Your task to perform on an android device: Open Wikipedia Image 0: 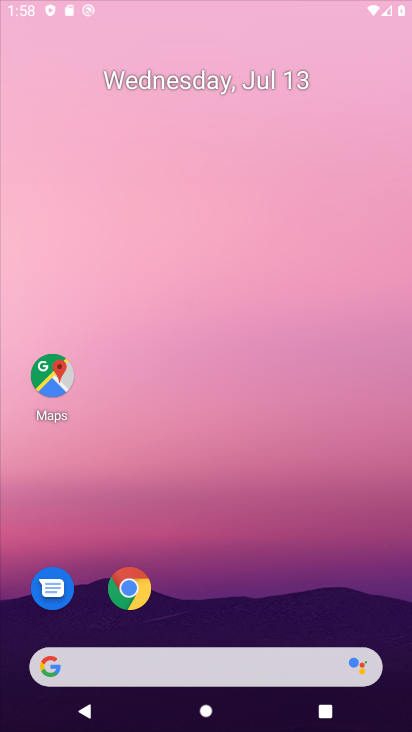
Step 0: click (230, 20)
Your task to perform on an android device: Open Wikipedia Image 1: 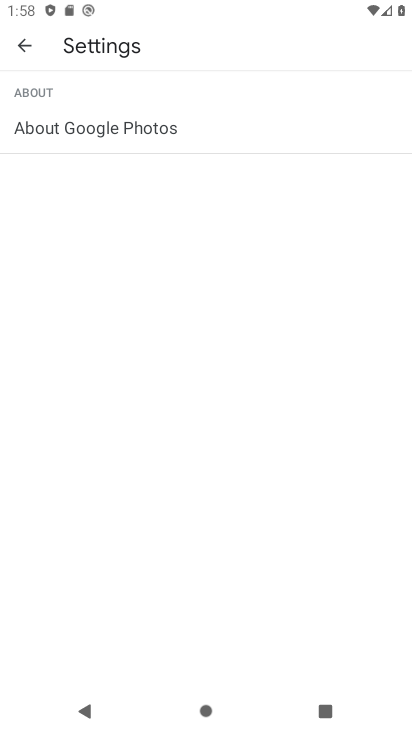
Step 1: drag from (205, 595) to (251, 143)
Your task to perform on an android device: Open Wikipedia Image 2: 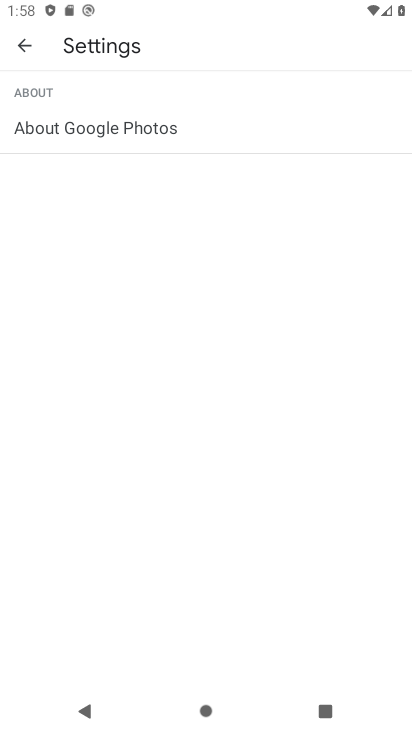
Step 2: press home button
Your task to perform on an android device: Open Wikipedia Image 3: 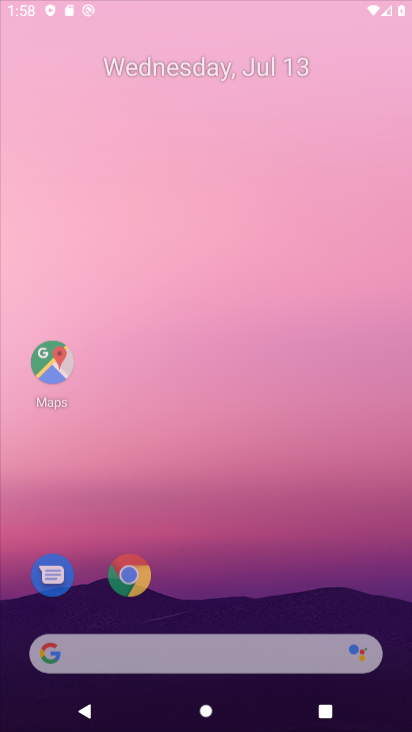
Step 3: drag from (251, 522) to (244, 115)
Your task to perform on an android device: Open Wikipedia Image 4: 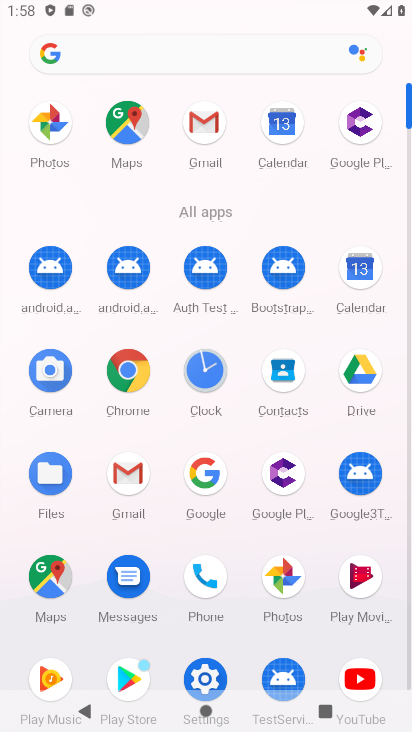
Step 4: click (163, 62)
Your task to perform on an android device: Open Wikipedia Image 5: 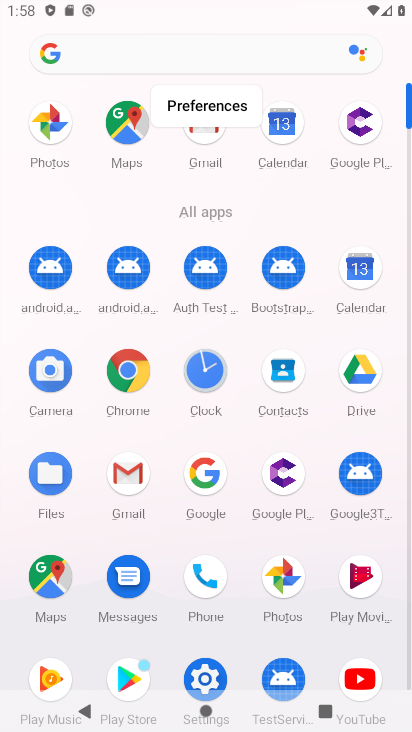
Step 5: click (141, 42)
Your task to perform on an android device: Open Wikipedia Image 6: 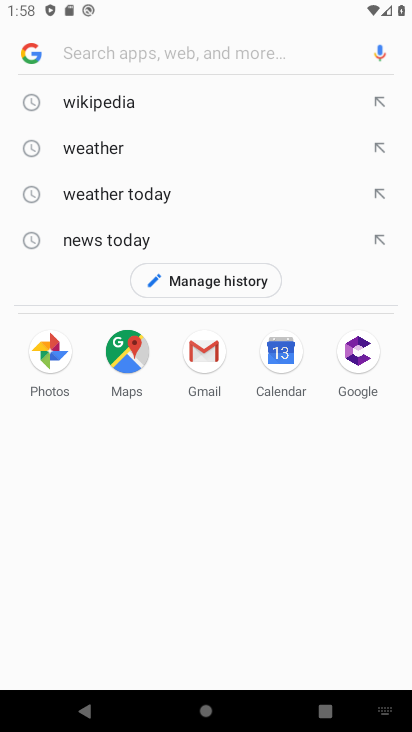
Step 6: click (109, 106)
Your task to perform on an android device: Open Wikipedia Image 7: 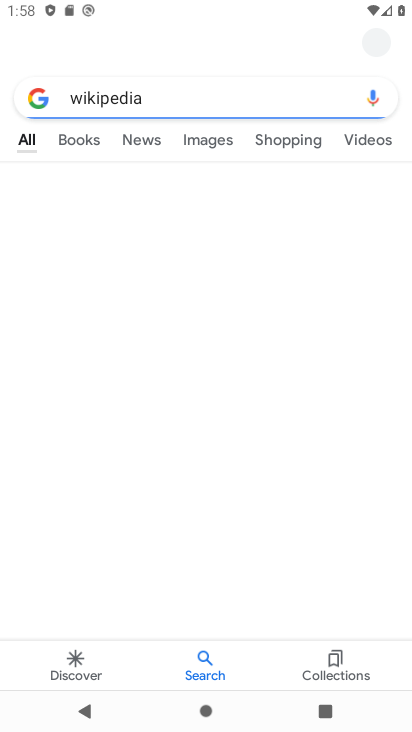
Step 7: drag from (213, 570) to (231, 99)
Your task to perform on an android device: Open Wikipedia Image 8: 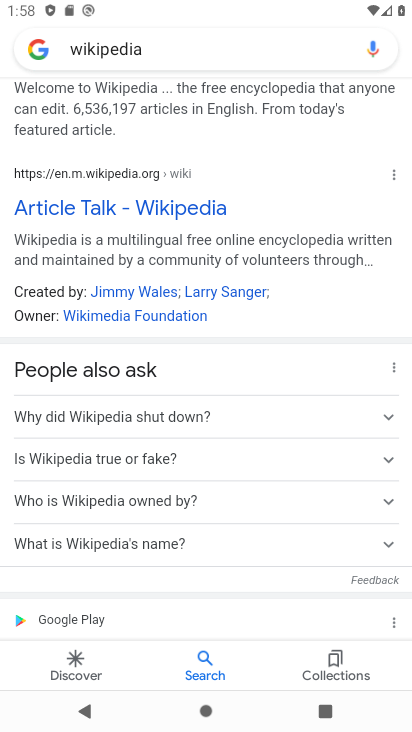
Step 8: drag from (141, 210) to (156, 615)
Your task to perform on an android device: Open Wikipedia Image 9: 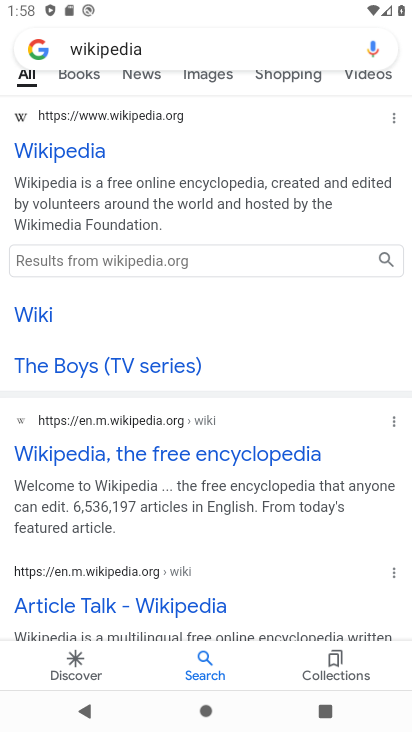
Step 9: click (73, 153)
Your task to perform on an android device: Open Wikipedia Image 10: 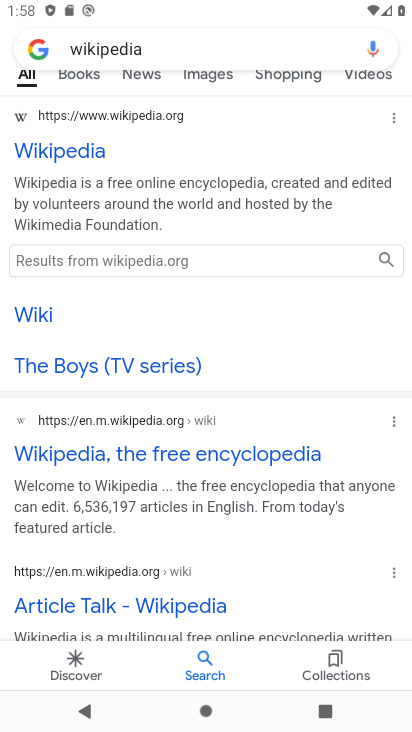
Step 10: task complete